Your task to perform on an android device: uninstall "The Home Depot" Image 0: 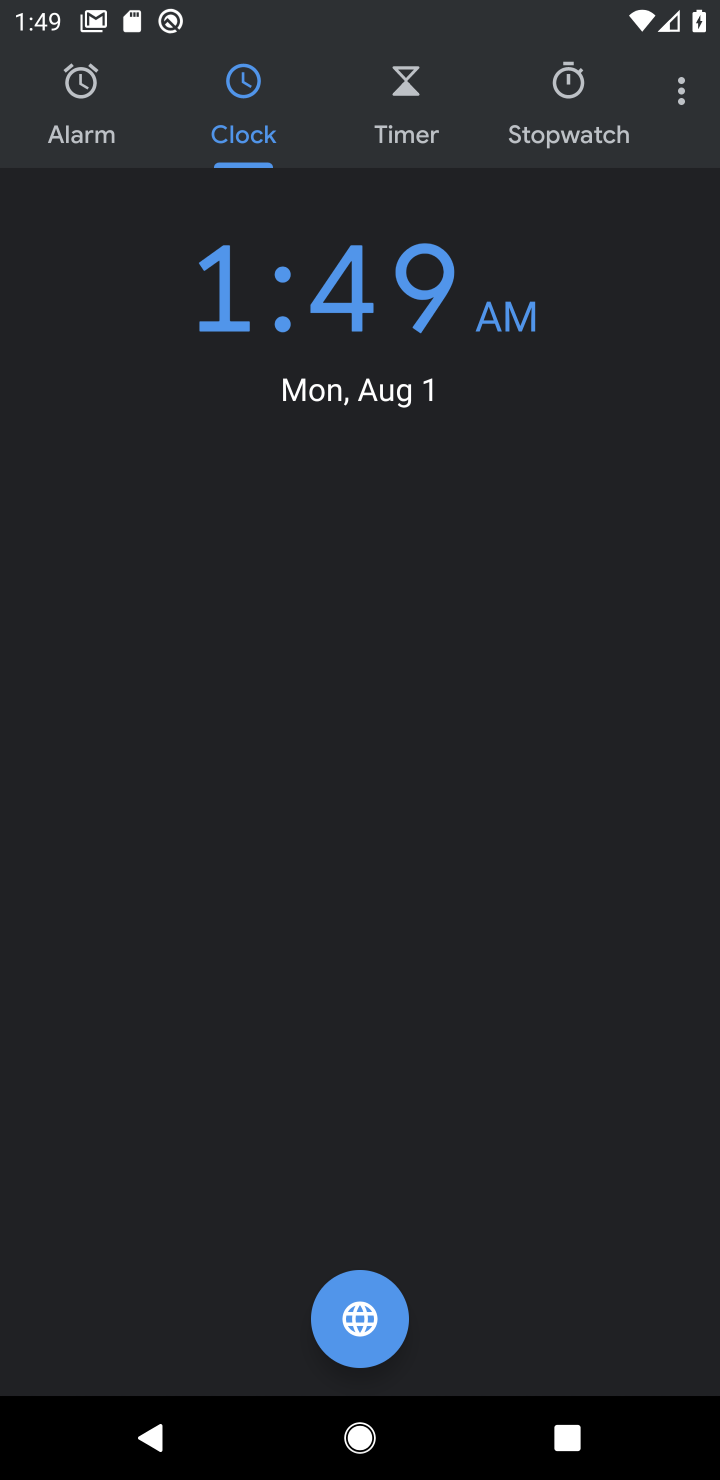
Step 0: press home button
Your task to perform on an android device: uninstall "The Home Depot" Image 1: 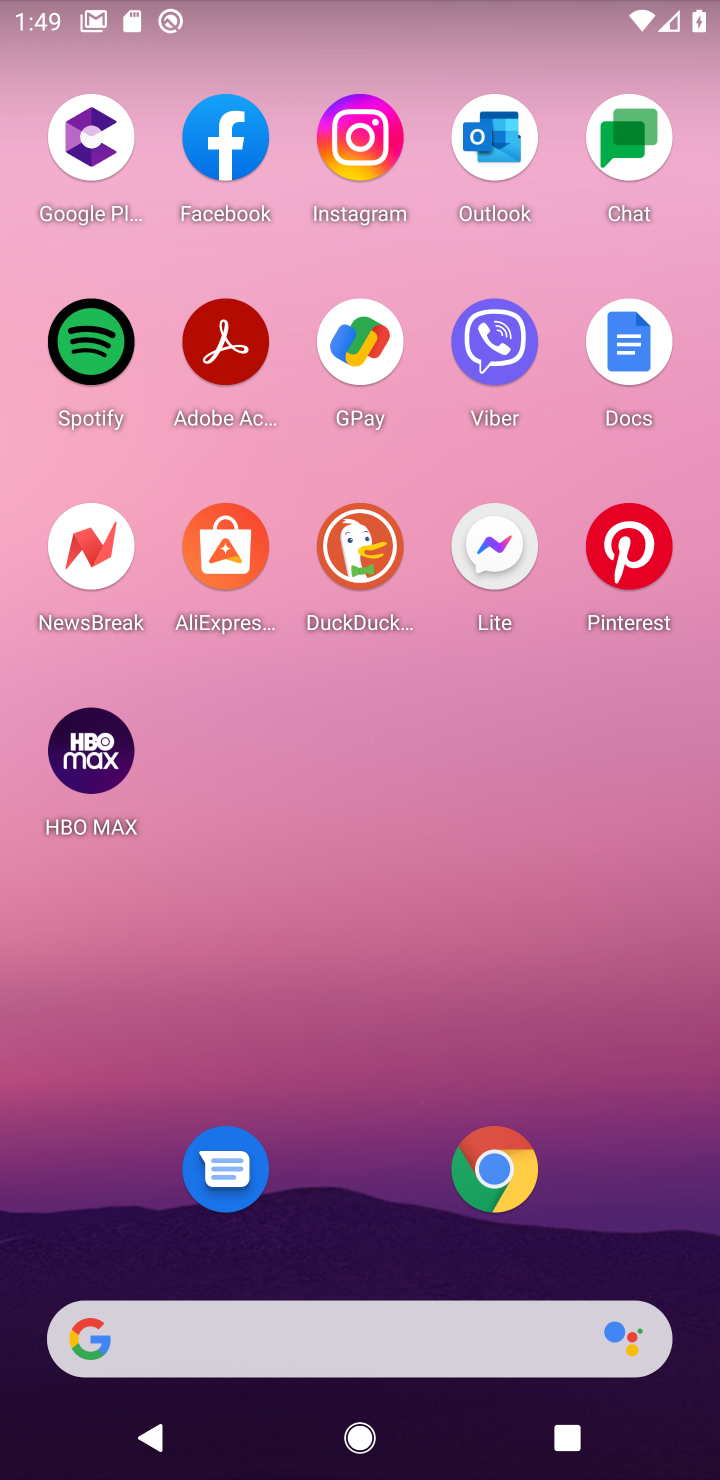
Step 1: drag from (282, 1221) to (425, 169)
Your task to perform on an android device: uninstall "The Home Depot" Image 2: 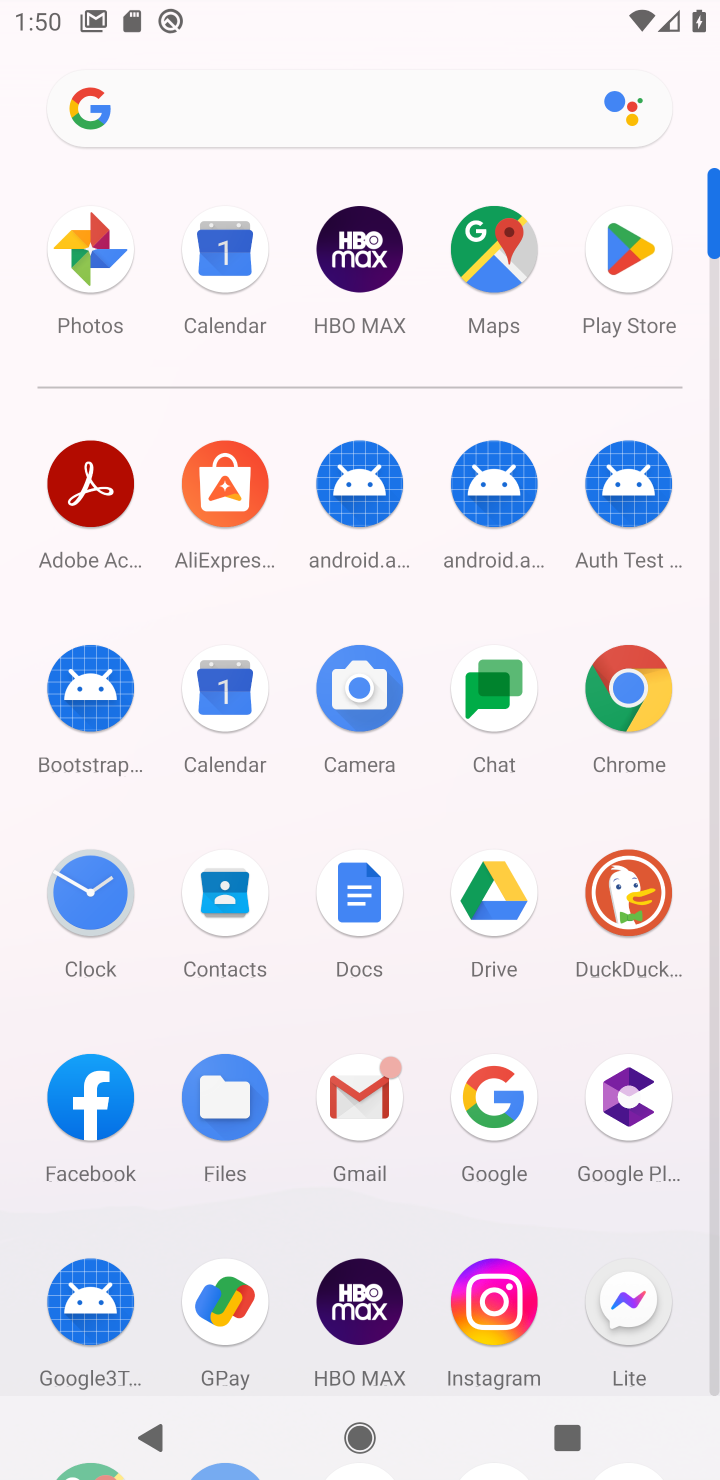
Step 2: click (626, 286)
Your task to perform on an android device: uninstall "The Home Depot" Image 3: 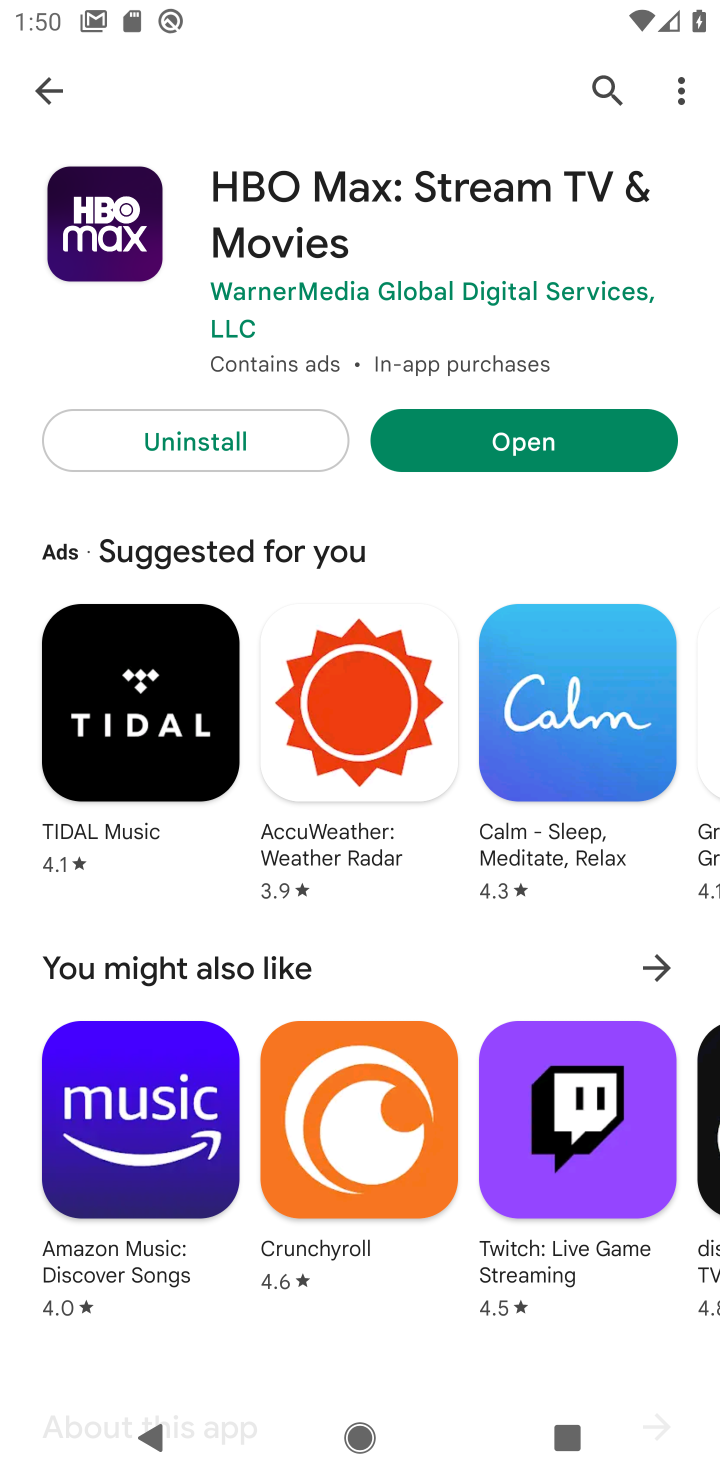
Step 3: click (626, 286)
Your task to perform on an android device: uninstall "The Home Depot" Image 4: 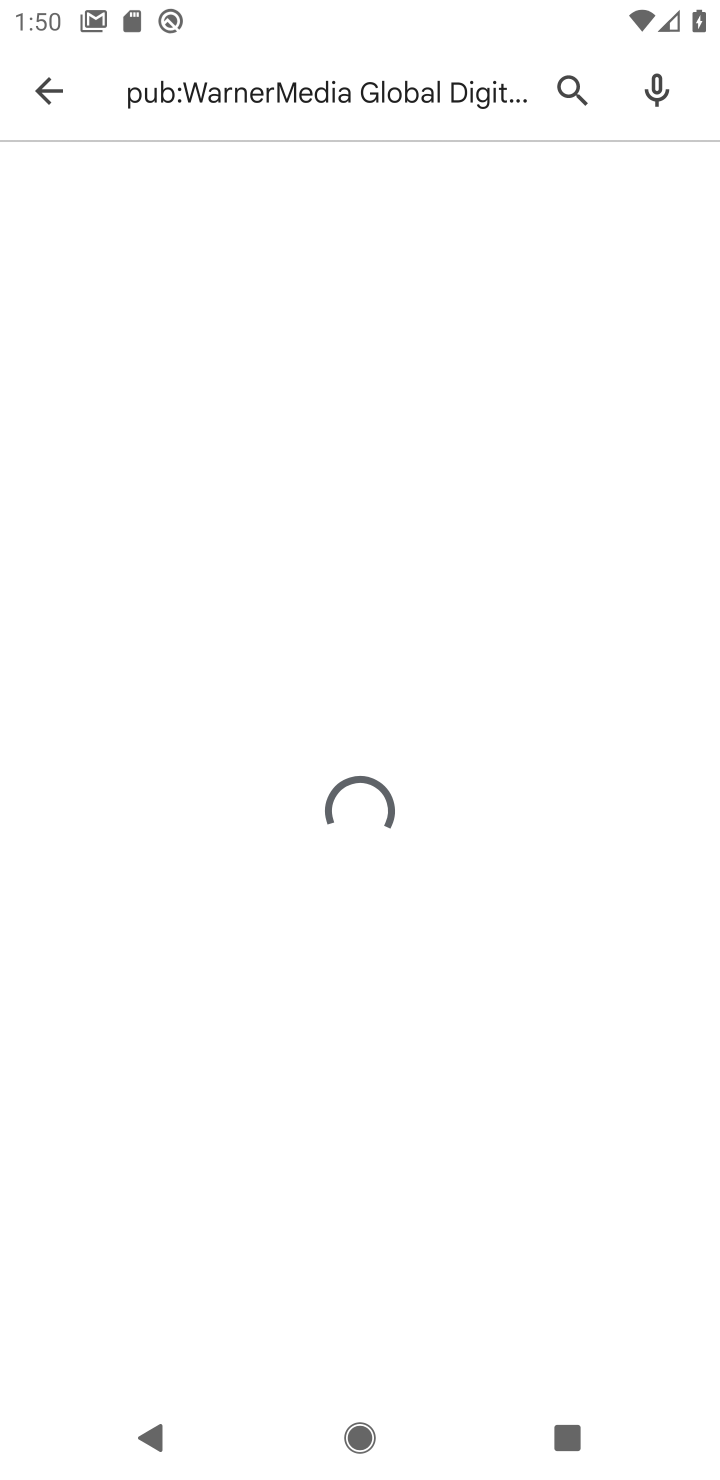
Step 4: click (53, 96)
Your task to perform on an android device: uninstall "The Home Depot" Image 5: 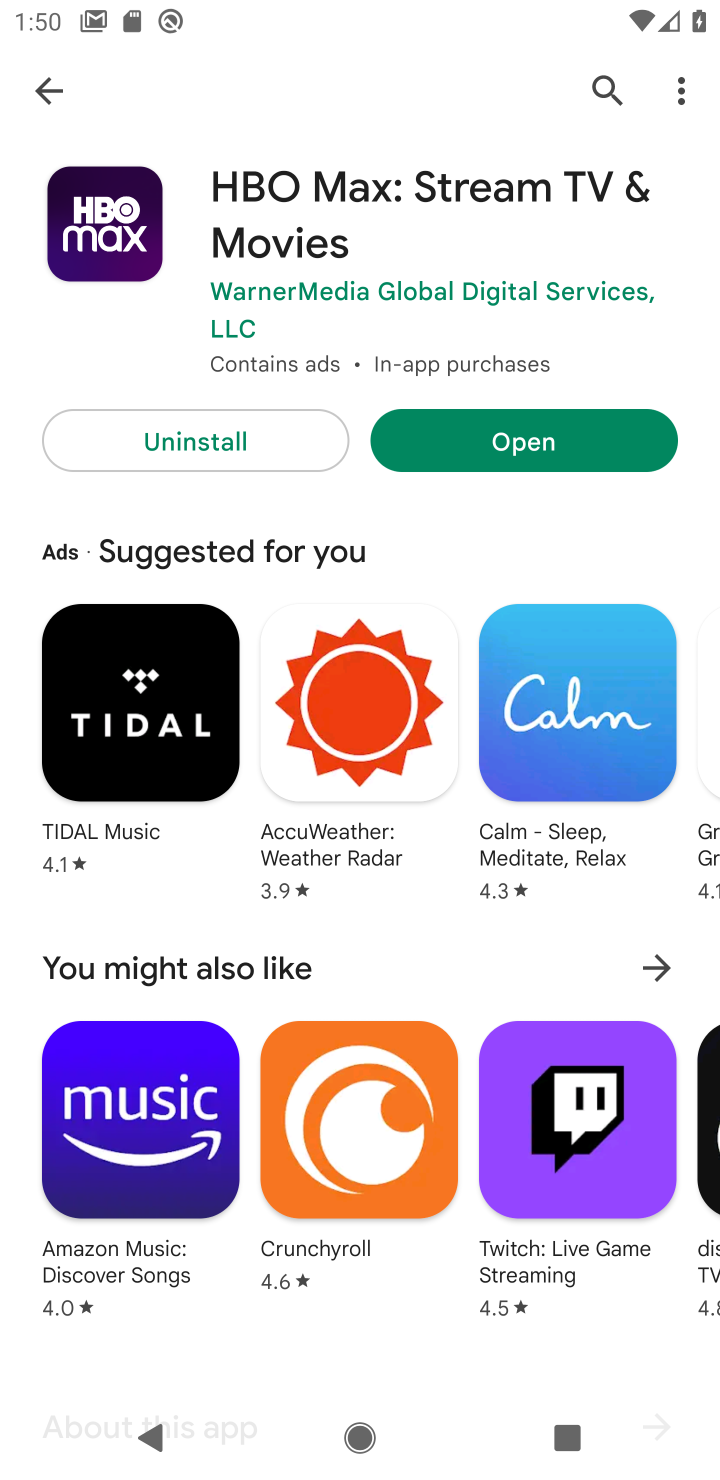
Step 5: click (35, 78)
Your task to perform on an android device: uninstall "The Home Depot" Image 6: 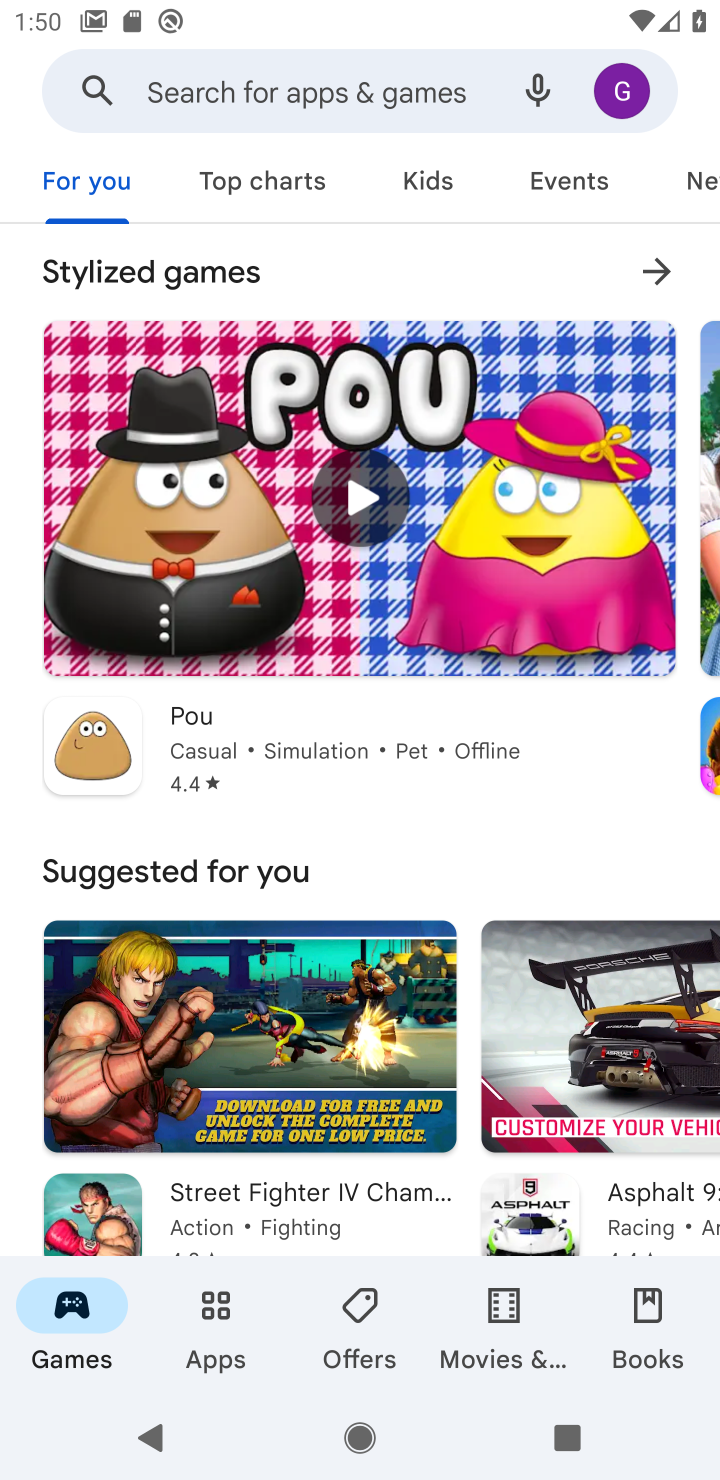
Step 6: click (166, 93)
Your task to perform on an android device: uninstall "The Home Depot" Image 7: 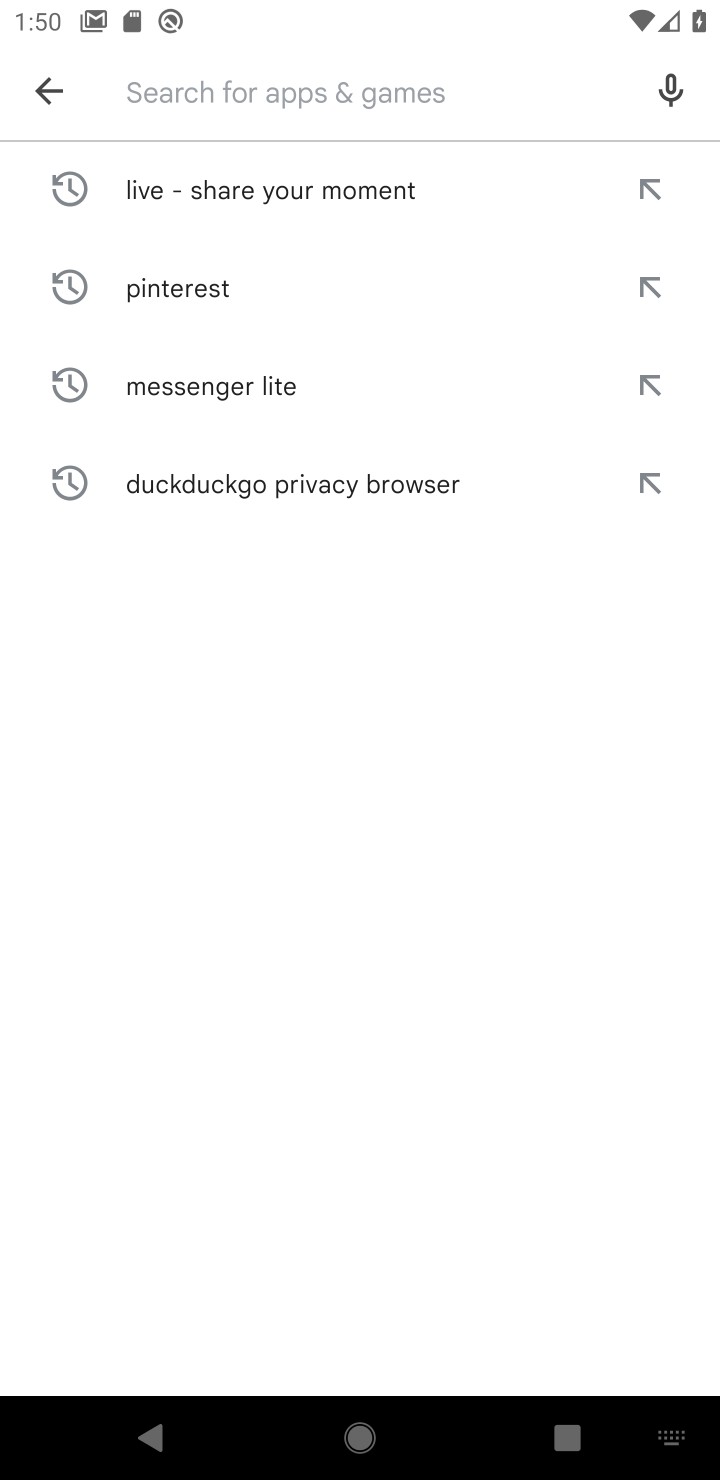
Step 7: type "The Home Depot"
Your task to perform on an android device: uninstall "The Home Depot" Image 8: 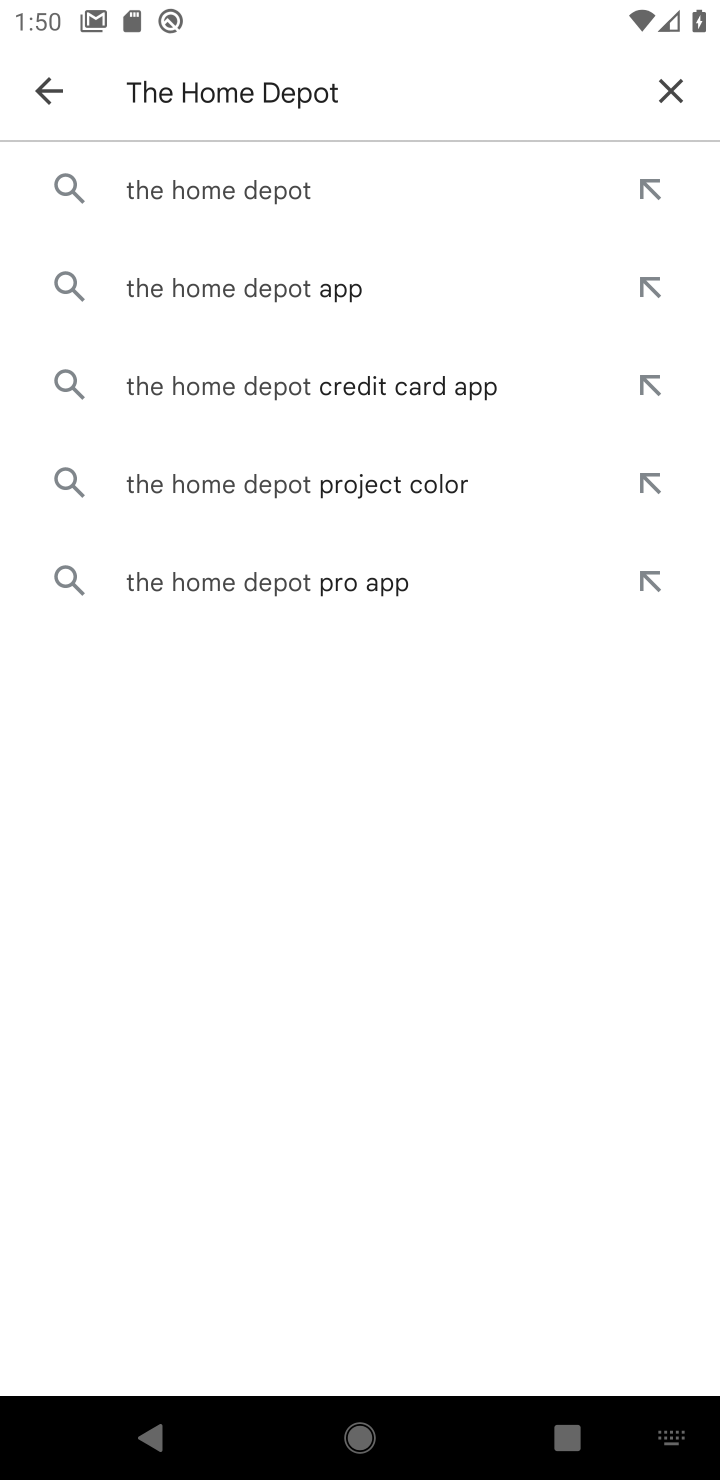
Step 8: click (293, 193)
Your task to perform on an android device: uninstall "The Home Depot" Image 9: 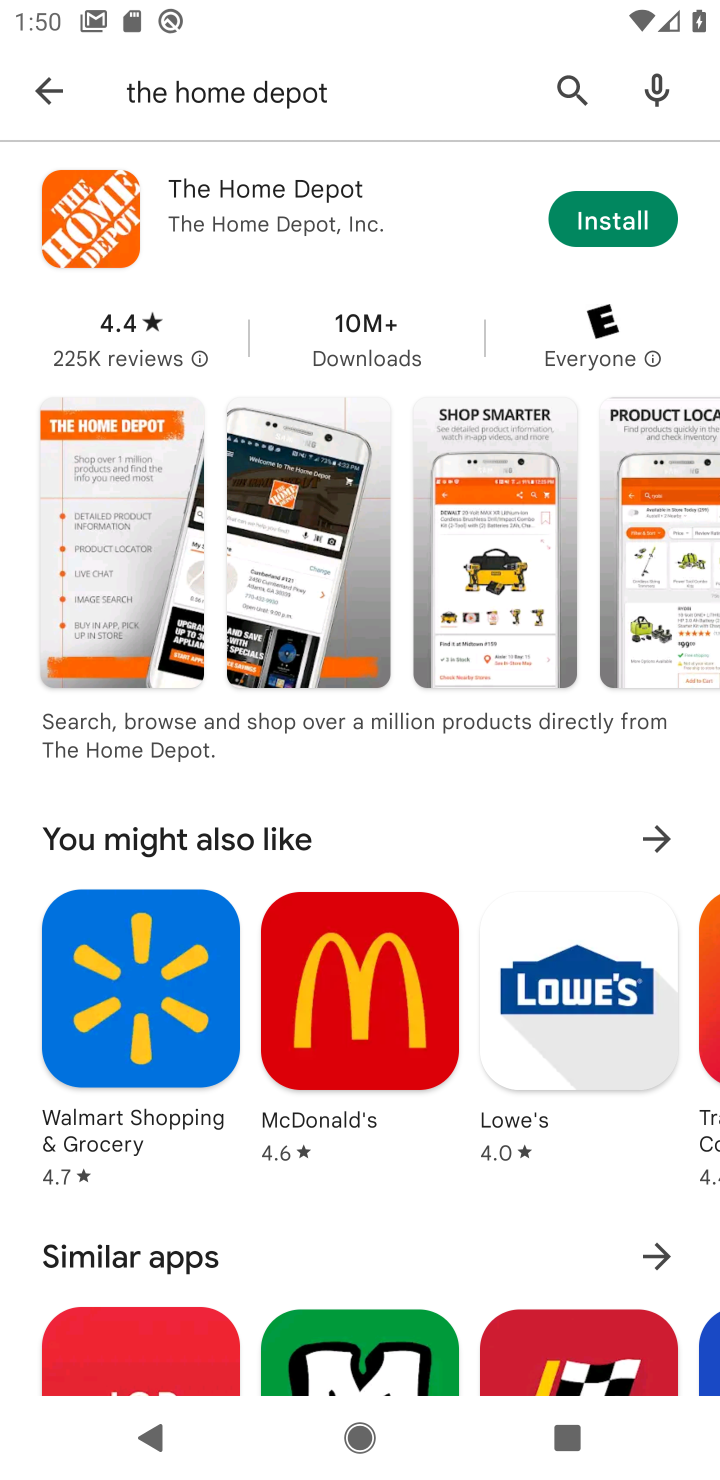
Step 9: click (293, 193)
Your task to perform on an android device: uninstall "The Home Depot" Image 10: 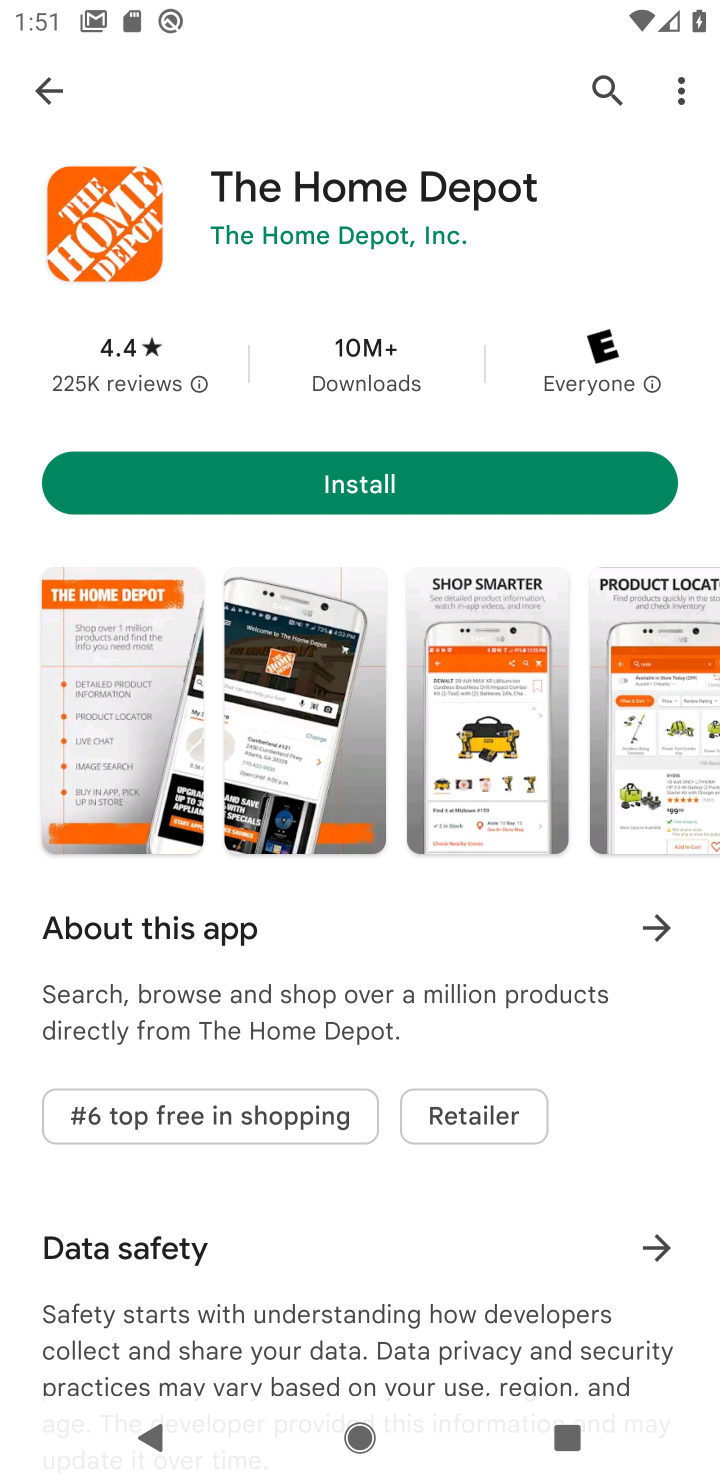
Step 10: task complete